Your task to perform on an android device: What's the weather going to be this weekend? Image 0: 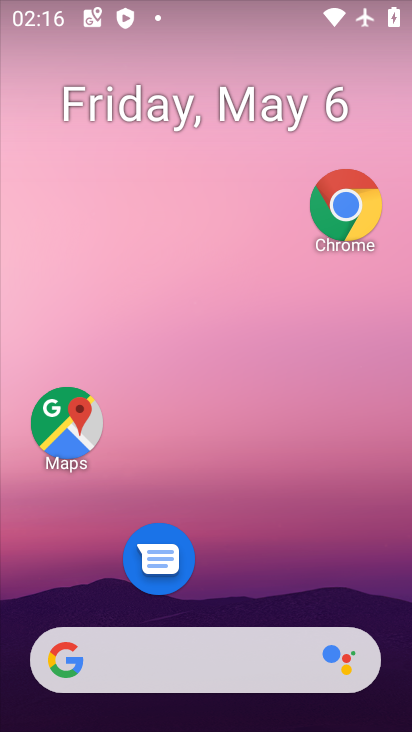
Step 0: click (72, 664)
Your task to perform on an android device: What's the weather going to be this weekend? Image 1: 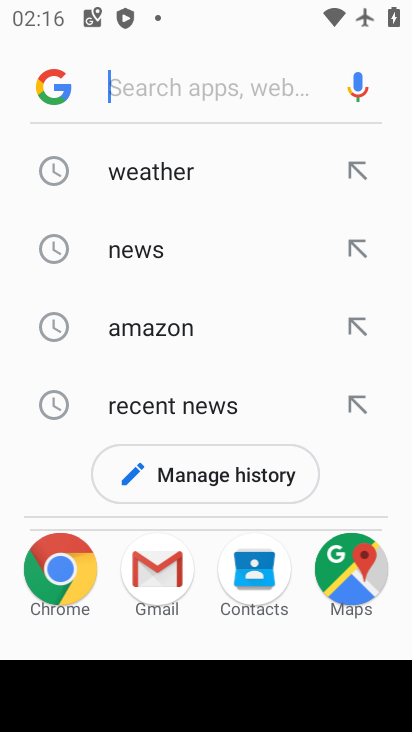
Step 1: click (172, 172)
Your task to perform on an android device: What's the weather going to be this weekend? Image 2: 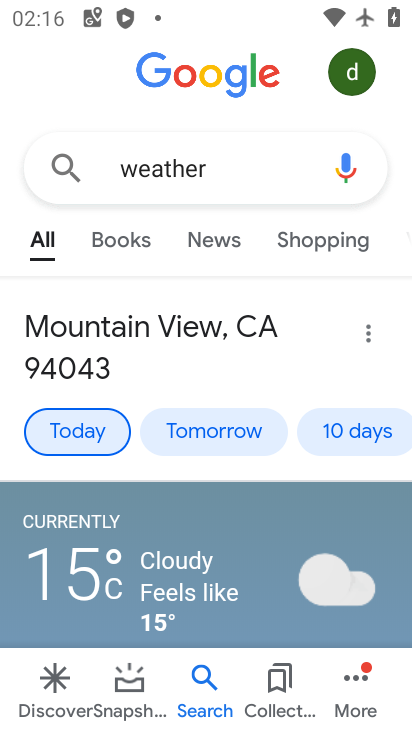
Step 2: click (329, 435)
Your task to perform on an android device: What's the weather going to be this weekend? Image 3: 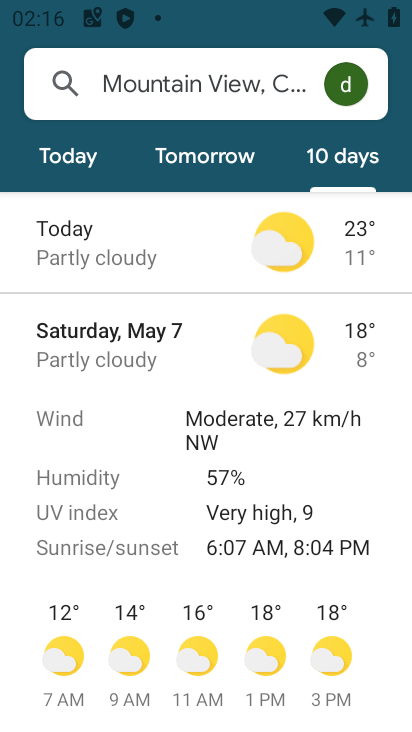
Step 3: task complete